Your task to perform on an android device: set the timer Image 0: 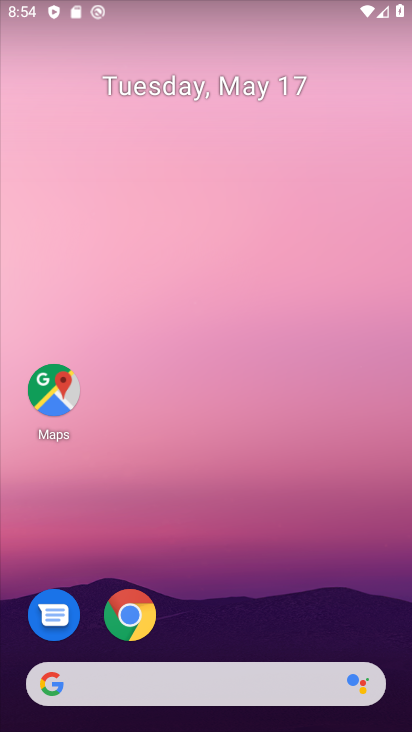
Step 0: drag from (164, 617) to (312, 117)
Your task to perform on an android device: set the timer Image 1: 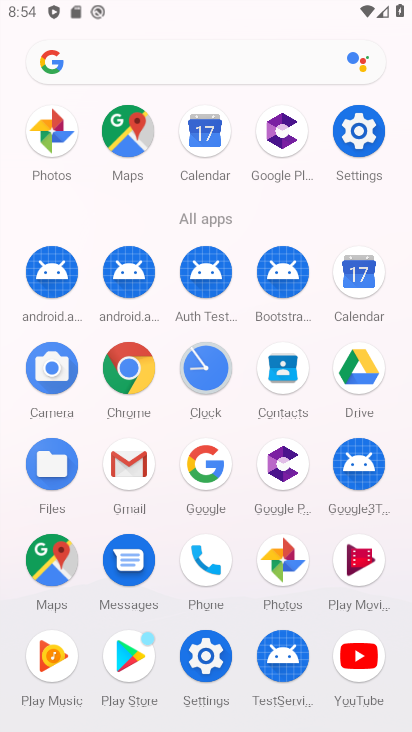
Step 1: click (209, 366)
Your task to perform on an android device: set the timer Image 2: 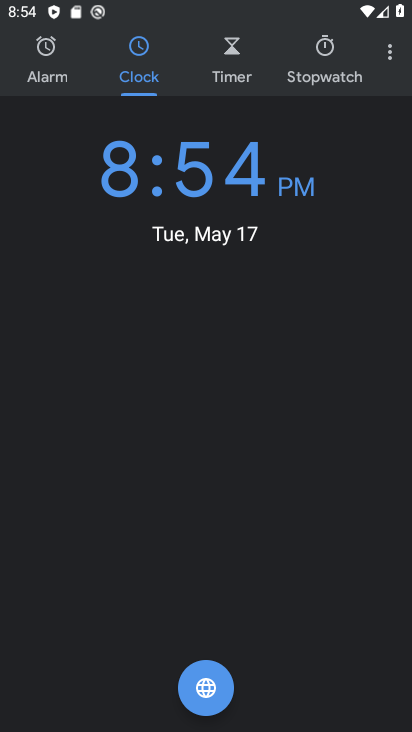
Step 2: click (229, 50)
Your task to perform on an android device: set the timer Image 3: 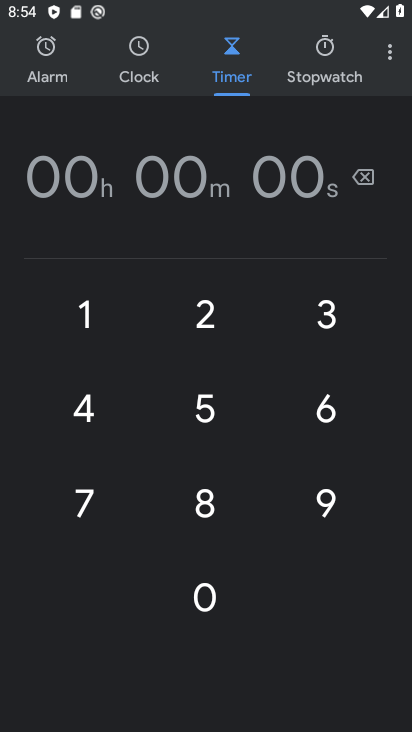
Step 3: click (209, 328)
Your task to perform on an android device: set the timer Image 4: 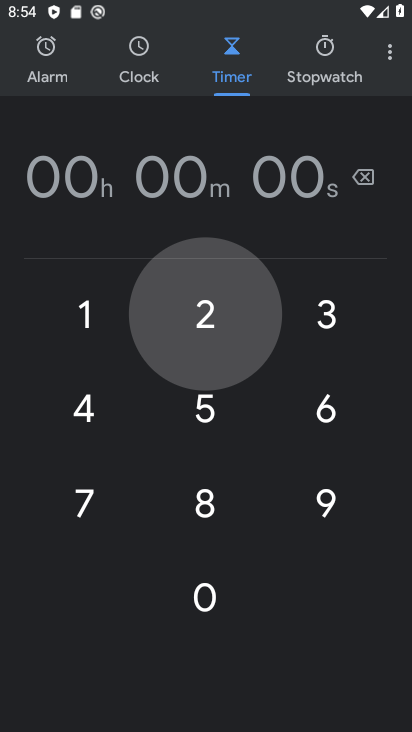
Step 4: click (209, 328)
Your task to perform on an android device: set the timer Image 5: 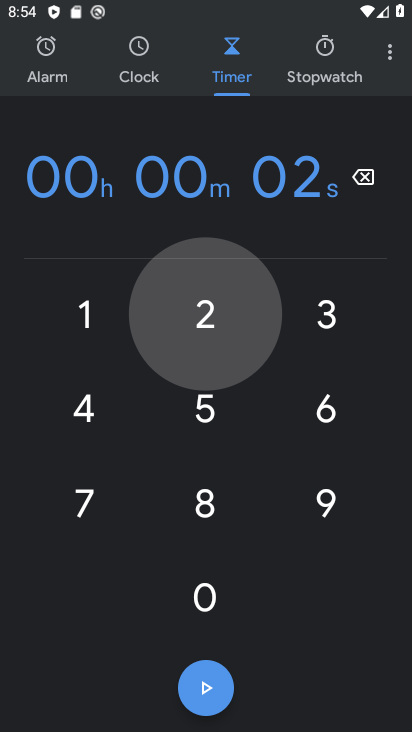
Step 5: click (210, 327)
Your task to perform on an android device: set the timer Image 6: 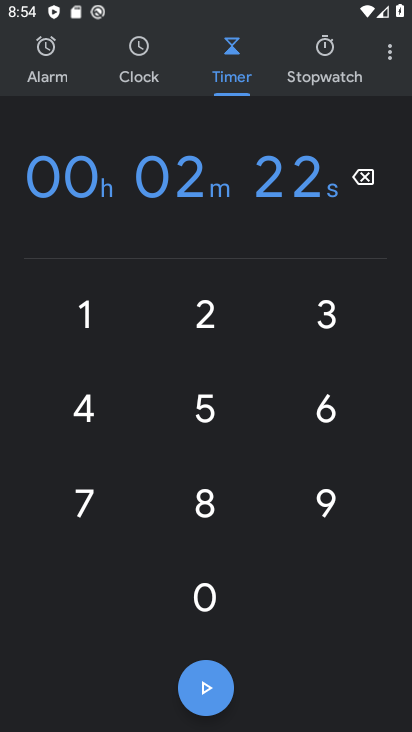
Step 6: click (210, 327)
Your task to perform on an android device: set the timer Image 7: 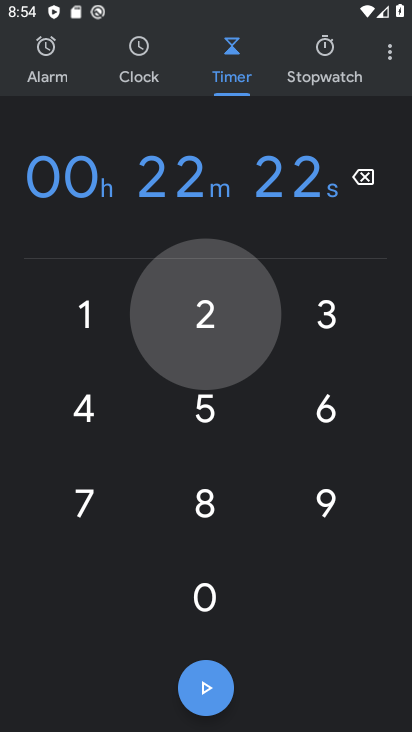
Step 7: click (210, 327)
Your task to perform on an android device: set the timer Image 8: 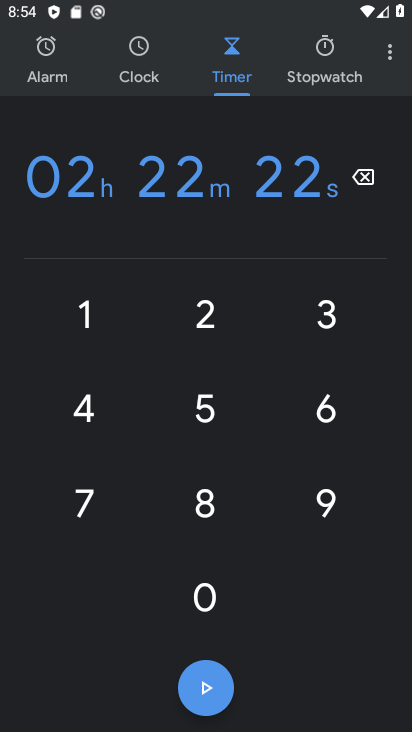
Step 8: click (210, 327)
Your task to perform on an android device: set the timer Image 9: 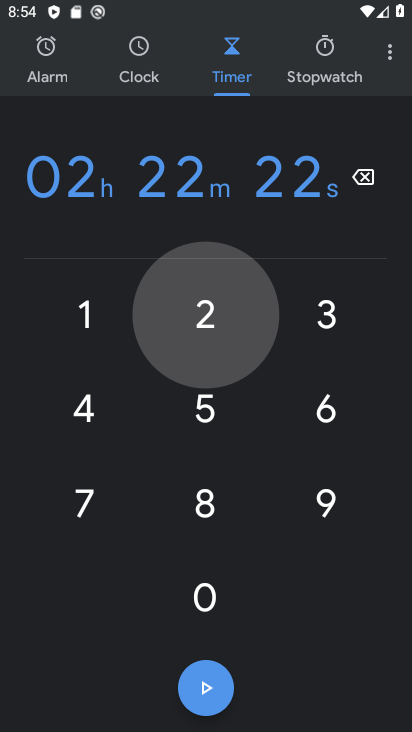
Step 9: click (210, 327)
Your task to perform on an android device: set the timer Image 10: 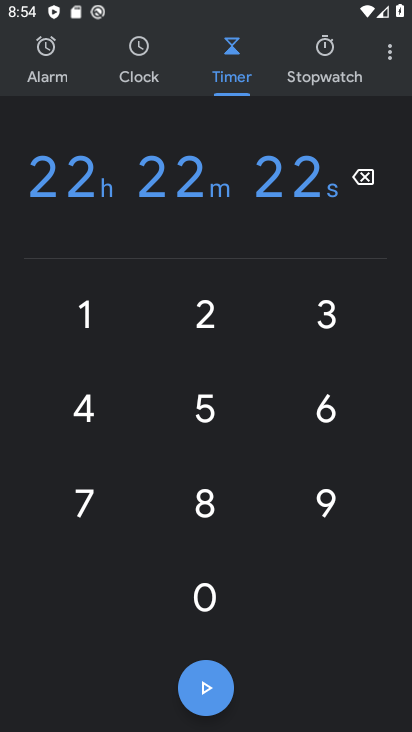
Step 10: click (225, 679)
Your task to perform on an android device: set the timer Image 11: 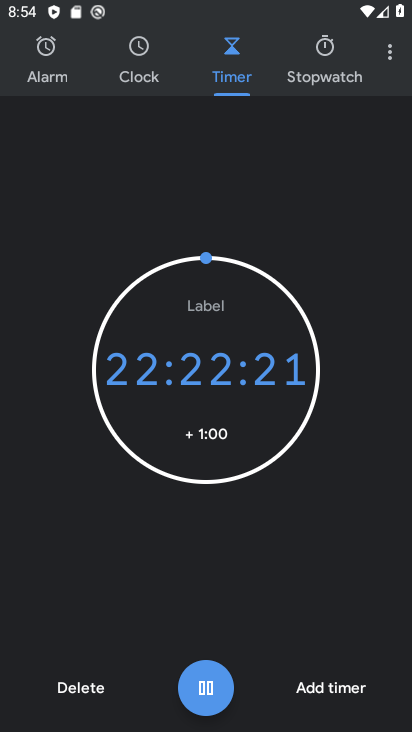
Step 11: task complete